Your task to perform on an android device: Clear all items from cart on walmart. Search for dell alienware on walmart, select the first entry, add it to the cart, then select checkout. Image 0: 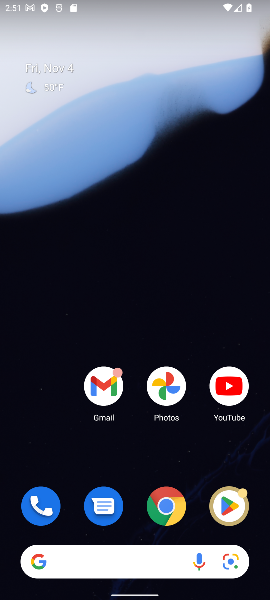
Step 0: drag from (135, 447) to (126, 4)
Your task to perform on an android device: Clear all items from cart on walmart. Search for dell alienware on walmart, select the first entry, add it to the cart, then select checkout. Image 1: 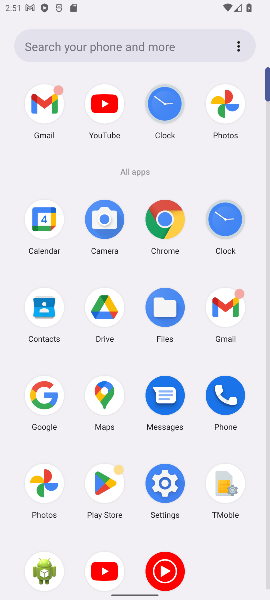
Step 1: click (167, 221)
Your task to perform on an android device: Clear all items from cart on walmart. Search for dell alienware on walmart, select the first entry, add it to the cart, then select checkout. Image 2: 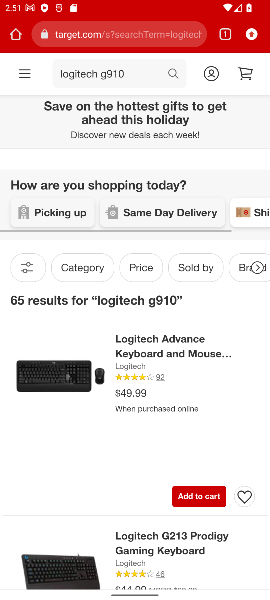
Step 2: click (143, 29)
Your task to perform on an android device: Clear all items from cart on walmart. Search for dell alienware on walmart, select the first entry, add it to the cart, then select checkout. Image 3: 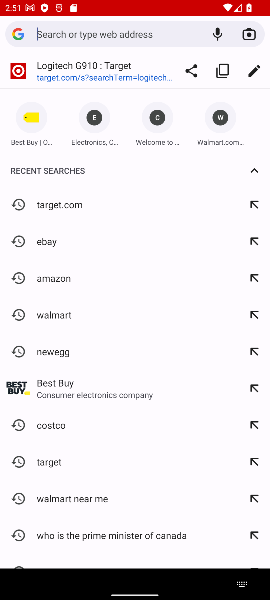
Step 3: type "walmart.com"
Your task to perform on an android device: Clear all items from cart on walmart. Search for dell alienware on walmart, select the first entry, add it to the cart, then select checkout. Image 4: 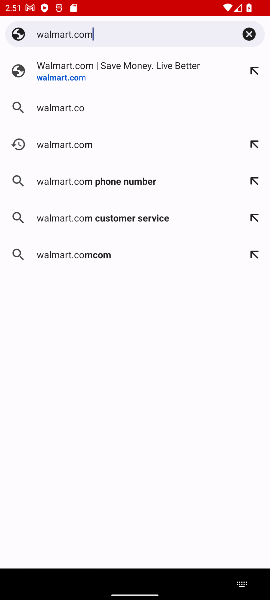
Step 4: press enter
Your task to perform on an android device: Clear all items from cart on walmart. Search for dell alienware on walmart, select the first entry, add it to the cart, then select checkout. Image 5: 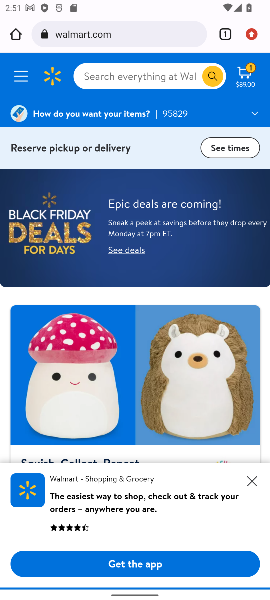
Step 5: click (156, 73)
Your task to perform on an android device: Clear all items from cart on walmart. Search for dell alienware on walmart, select the first entry, add it to the cart, then select checkout. Image 6: 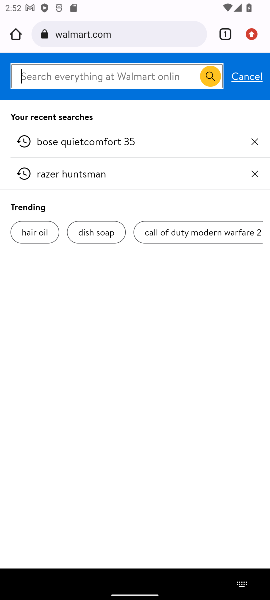
Step 6: type "dell alienware"
Your task to perform on an android device: Clear all items from cart on walmart. Search for dell alienware on walmart, select the first entry, add it to the cart, then select checkout. Image 7: 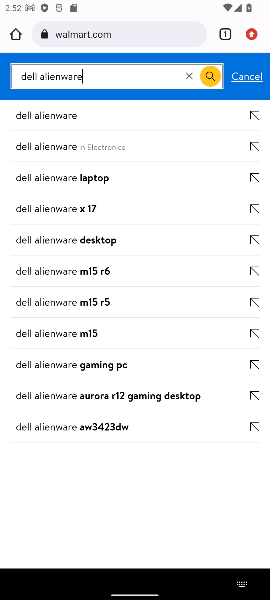
Step 7: press enter
Your task to perform on an android device: Clear all items from cart on walmart. Search for dell alienware on walmart, select the first entry, add it to the cart, then select checkout. Image 8: 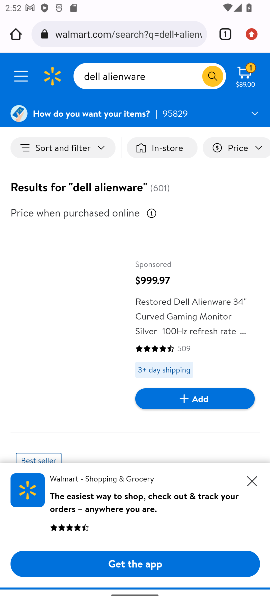
Step 8: click (239, 67)
Your task to perform on an android device: Clear all items from cart on walmart. Search for dell alienware on walmart, select the first entry, add it to the cart, then select checkout. Image 9: 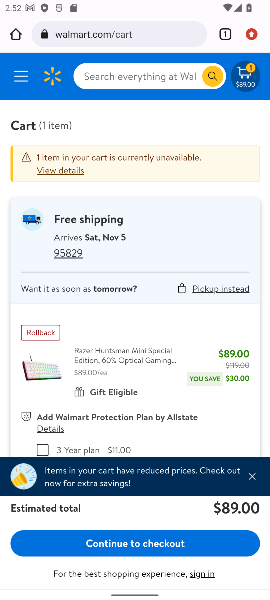
Step 9: drag from (115, 410) to (134, 156)
Your task to perform on an android device: Clear all items from cart on walmart. Search for dell alienware on walmart, select the first entry, add it to the cart, then select checkout. Image 10: 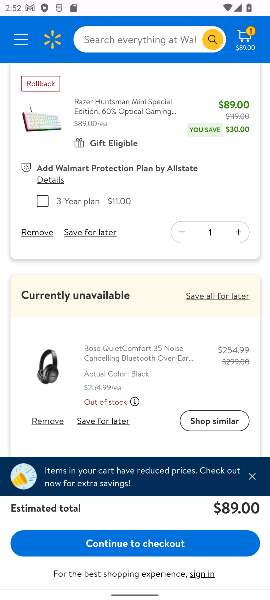
Step 10: click (42, 237)
Your task to perform on an android device: Clear all items from cart on walmart. Search for dell alienware on walmart, select the first entry, add it to the cart, then select checkout. Image 11: 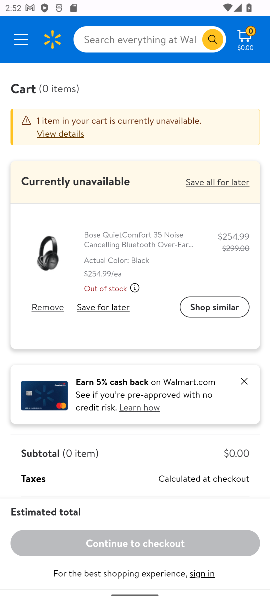
Step 11: click (53, 310)
Your task to perform on an android device: Clear all items from cart on walmart. Search for dell alienware on walmart, select the first entry, add it to the cart, then select checkout. Image 12: 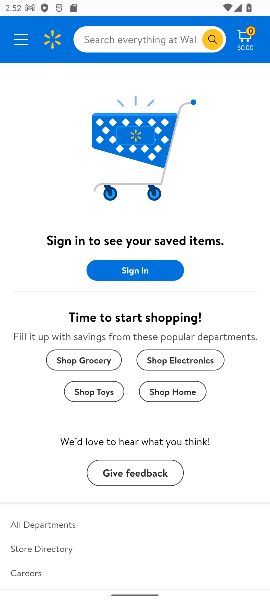
Step 12: click (147, 37)
Your task to perform on an android device: Clear all items from cart on walmart. Search for dell alienware on walmart, select the first entry, add it to the cart, then select checkout. Image 13: 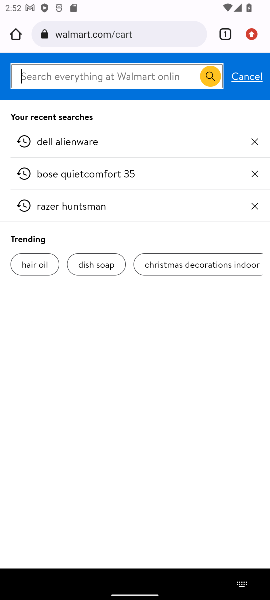
Step 13: type "dell alienware"
Your task to perform on an android device: Clear all items from cart on walmart. Search for dell alienware on walmart, select the first entry, add it to the cart, then select checkout. Image 14: 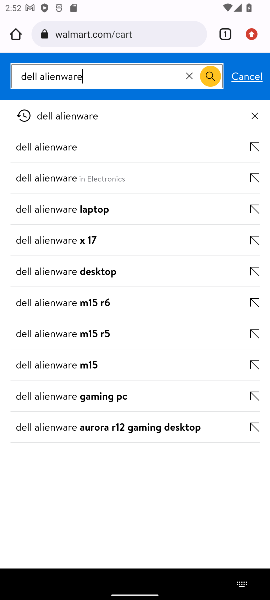
Step 14: press enter
Your task to perform on an android device: Clear all items from cart on walmart. Search for dell alienware on walmart, select the first entry, add it to the cart, then select checkout. Image 15: 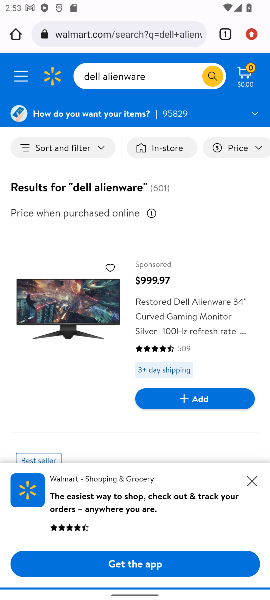
Step 15: drag from (153, 465) to (151, 120)
Your task to perform on an android device: Clear all items from cart on walmart. Search for dell alienware on walmart, select the first entry, add it to the cart, then select checkout. Image 16: 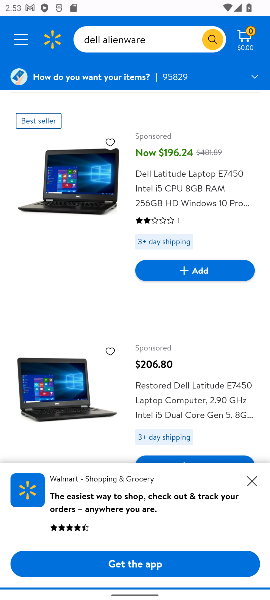
Step 16: drag from (142, 383) to (158, 45)
Your task to perform on an android device: Clear all items from cart on walmart. Search for dell alienware on walmart, select the first entry, add it to the cart, then select checkout. Image 17: 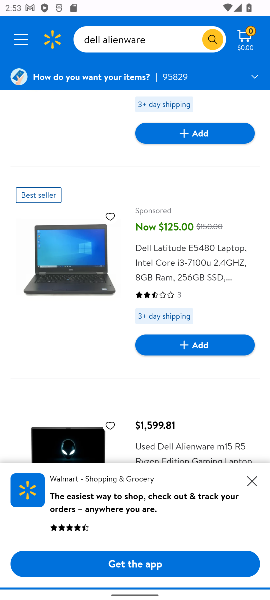
Step 17: drag from (118, 368) to (137, 165)
Your task to perform on an android device: Clear all items from cart on walmart. Search for dell alienware on walmart, select the first entry, add it to the cart, then select checkout. Image 18: 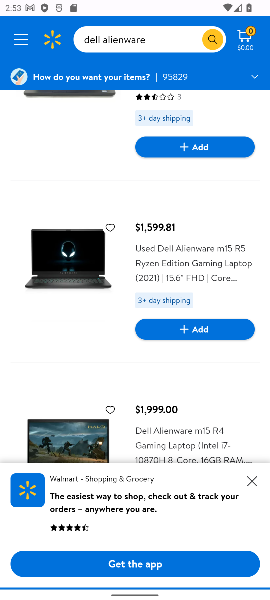
Step 18: click (171, 257)
Your task to perform on an android device: Clear all items from cart on walmart. Search for dell alienware on walmart, select the first entry, add it to the cart, then select checkout. Image 19: 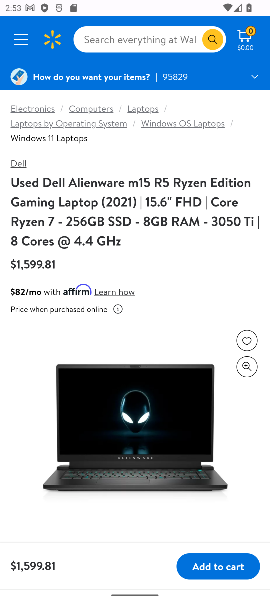
Step 19: drag from (142, 412) to (165, 163)
Your task to perform on an android device: Clear all items from cart on walmart. Search for dell alienware on walmart, select the first entry, add it to the cart, then select checkout. Image 20: 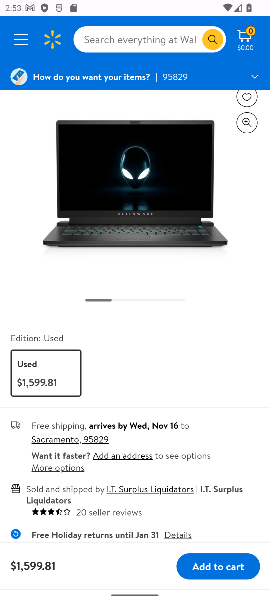
Step 20: drag from (122, 368) to (150, 240)
Your task to perform on an android device: Clear all items from cart on walmart. Search for dell alienware on walmart, select the first entry, add it to the cart, then select checkout. Image 21: 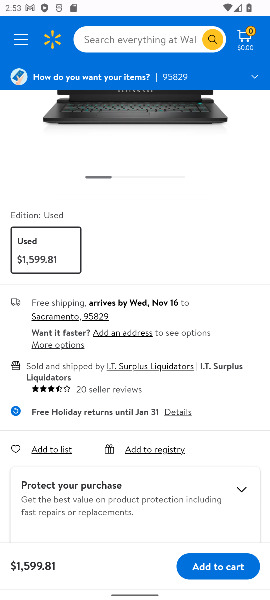
Step 21: drag from (137, 490) to (151, 427)
Your task to perform on an android device: Clear all items from cart on walmart. Search for dell alienware on walmart, select the first entry, add it to the cart, then select checkout. Image 22: 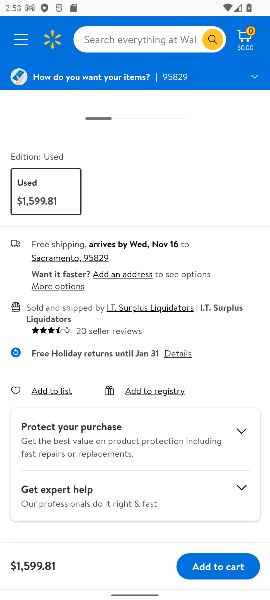
Step 22: click (213, 560)
Your task to perform on an android device: Clear all items from cart on walmart. Search for dell alienware on walmart, select the first entry, add it to the cart, then select checkout. Image 23: 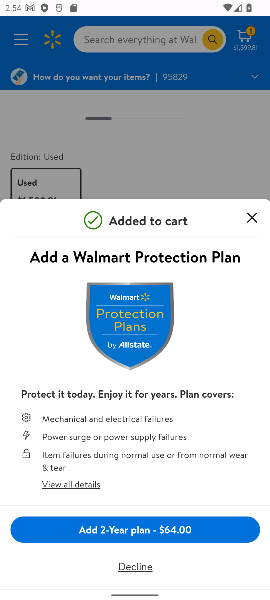
Step 23: click (243, 223)
Your task to perform on an android device: Clear all items from cart on walmart. Search for dell alienware on walmart, select the first entry, add it to the cart, then select checkout. Image 24: 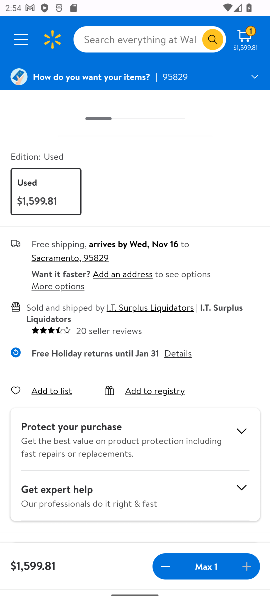
Step 24: click (247, 41)
Your task to perform on an android device: Clear all items from cart on walmart. Search for dell alienware on walmart, select the first entry, add it to the cart, then select checkout. Image 25: 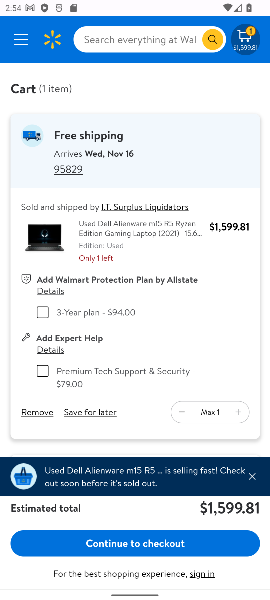
Step 25: click (247, 41)
Your task to perform on an android device: Clear all items from cart on walmart. Search for dell alienware on walmart, select the first entry, add it to the cart, then select checkout. Image 26: 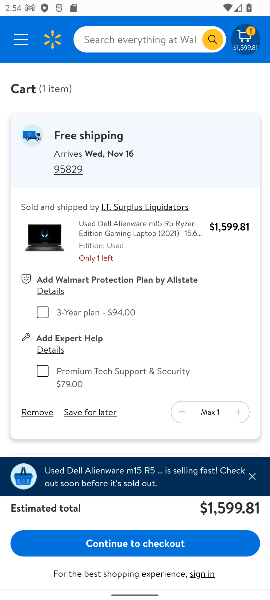
Step 26: drag from (169, 322) to (181, 4)
Your task to perform on an android device: Clear all items from cart on walmart. Search for dell alienware on walmart, select the first entry, add it to the cart, then select checkout. Image 27: 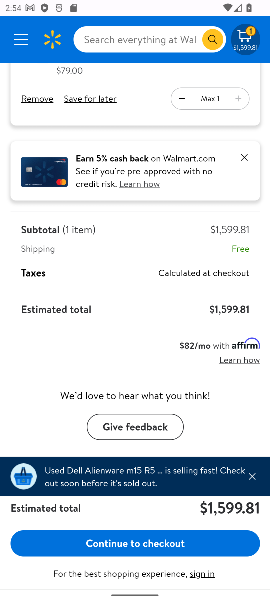
Step 27: drag from (156, 382) to (204, 529)
Your task to perform on an android device: Clear all items from cart on walmart. Search for dell alienware on walmart, select the first entry, add it to the cart, then select checkout. Image 28: 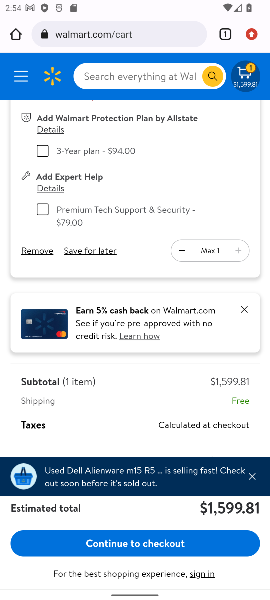
Step 28: drag from (159, 186) to (175, 484)
Your task to perform on an android device: Clear all items from cart on walmart. Search for dell alienware on walmart, select the first entry, add it to the cart, then select checkout. Image 29: 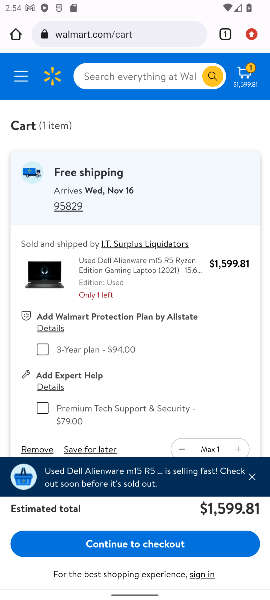
Step 29: drag from (168, 240) to (160, 131)
Your task to perform on an android device: Clear all items from cart on walmart. Search for dell alienware on walmart, select the first entry, add it to the cart, then select checkout. Image 30: 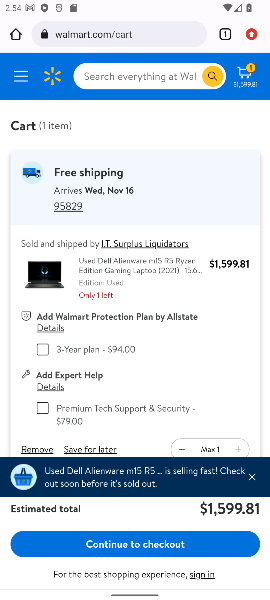
Step 30: drag from (154, 353) to (163, 131)
Your task to perform on an android device: Clear all items from cart on walmart. Search for dell alienware on walmart, select the first entry, add it to the cart, then select checkout. Image 31: 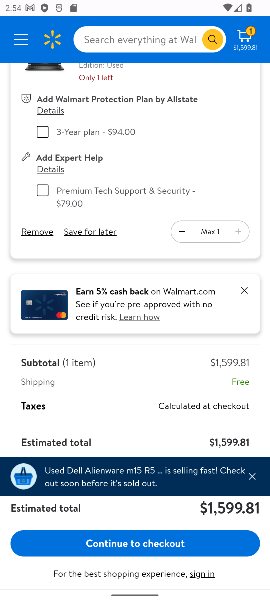
Step 31: click (187, 547)
Your task to perform on an android device: Clear all items from cart on walmart. Search for dell alienware on walmart, select the first entry, add it to the cart, then select checkout. Image 32: 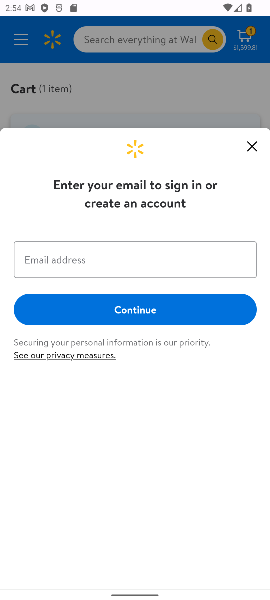
Step 32: task complete